Your task to perform on an android device: Go to location settings Image 0: 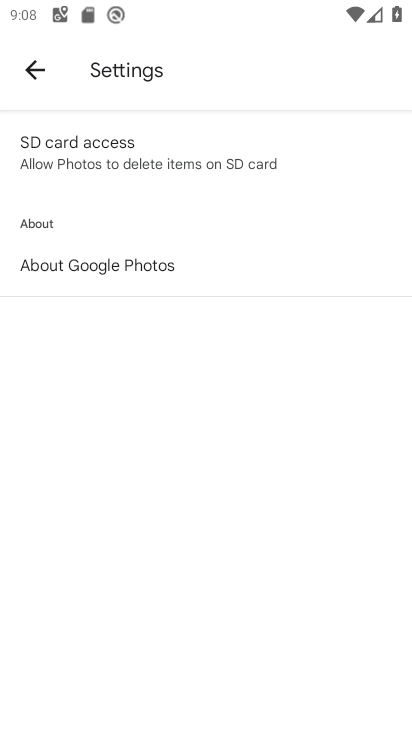
Step 0: press home button
Your task to perform on an android device: Go to location settings Image 1: 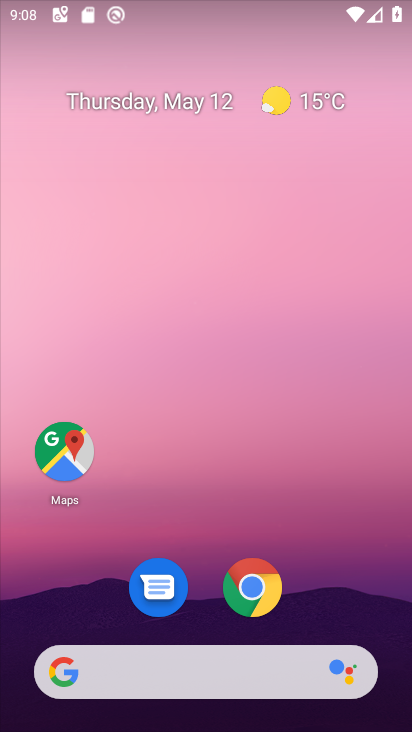
Step 1: drag from (394, 665) to (315, 104)
Your task to perform on an android device: Go to location settings Image 2: 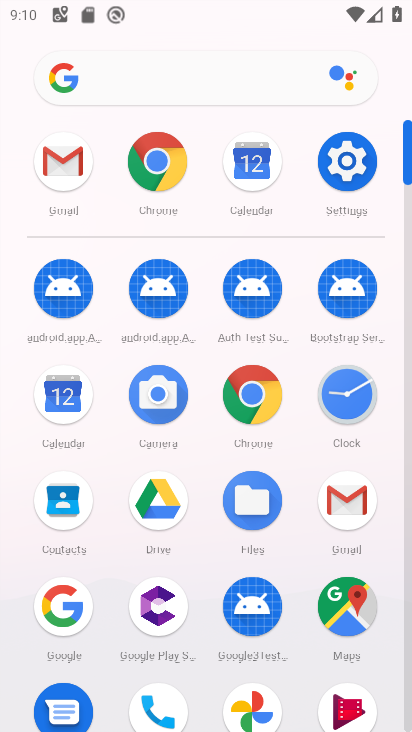
Step 2: click (358, 146)
Your task to perform on an android device: Go to location settings Image 3: 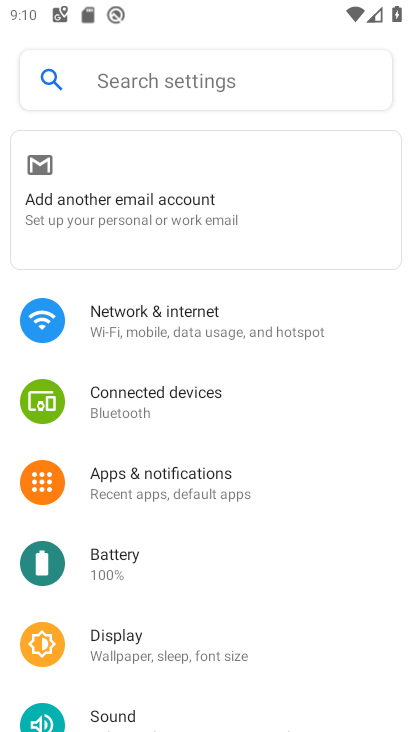
Step 3: drag from (123, 637) to (148, 177)
Your task to perform on an android device: Go to location settings Image 4: 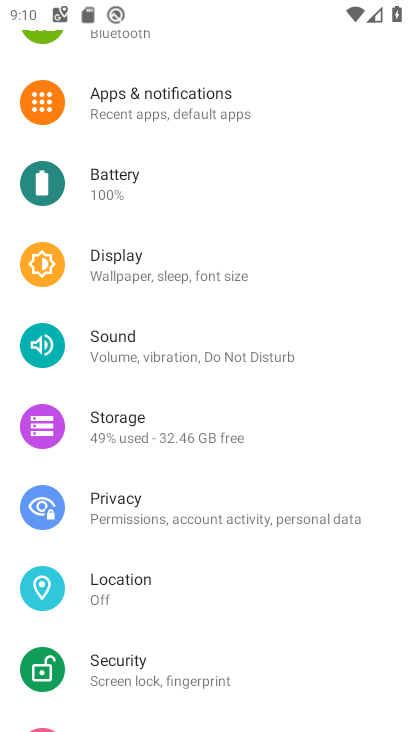
Step 4: click (88, 592)
Your task to perform on an android device: Go to location settings Image 5: 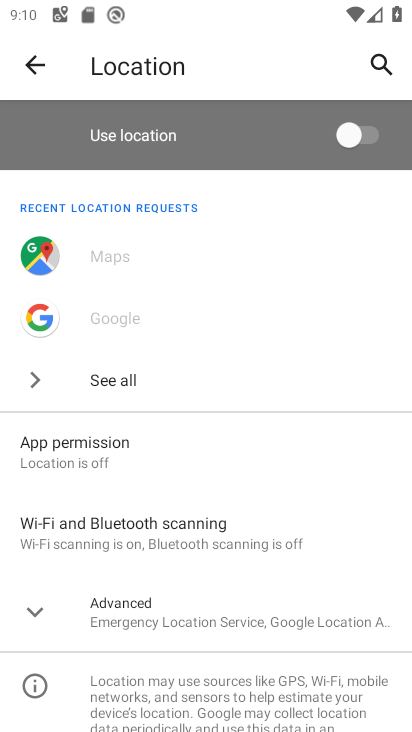
Step 5: task complete